Your task to perform on an android device: Go to network settings Image 0: 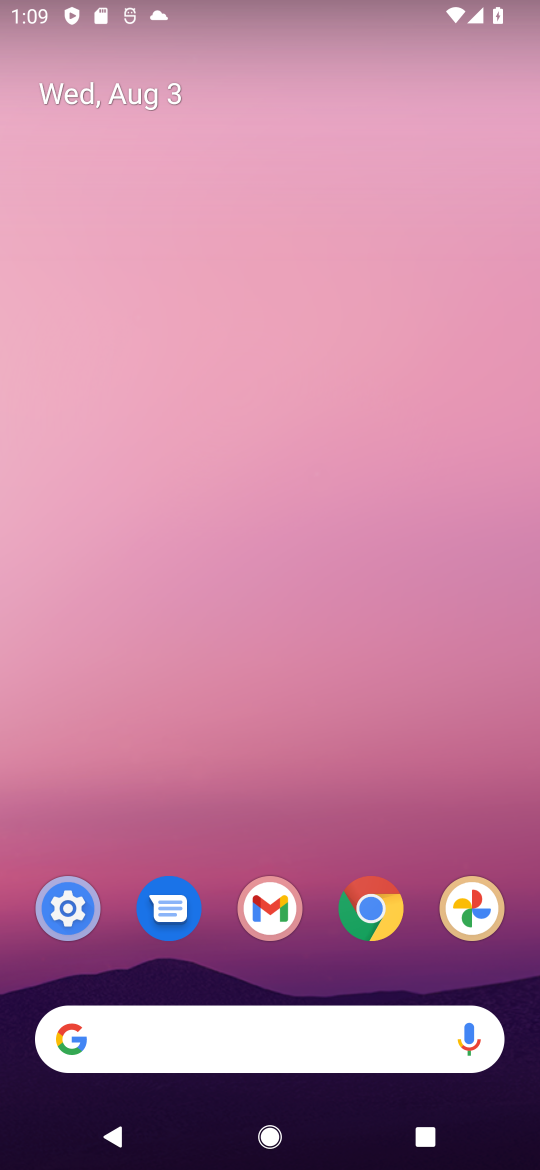
Step 0: click (66, 923)
Your task to perform on an android device: Go to network settings Image 1: 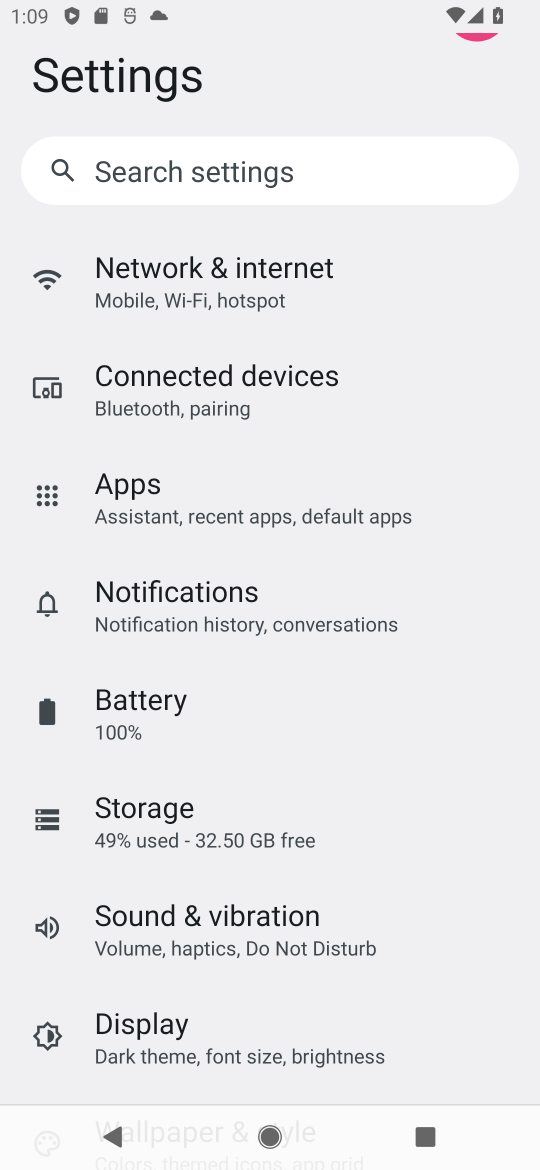
Step 1: click (177, 302)
Your task to perform on an android device: Go to network settings Image 2: 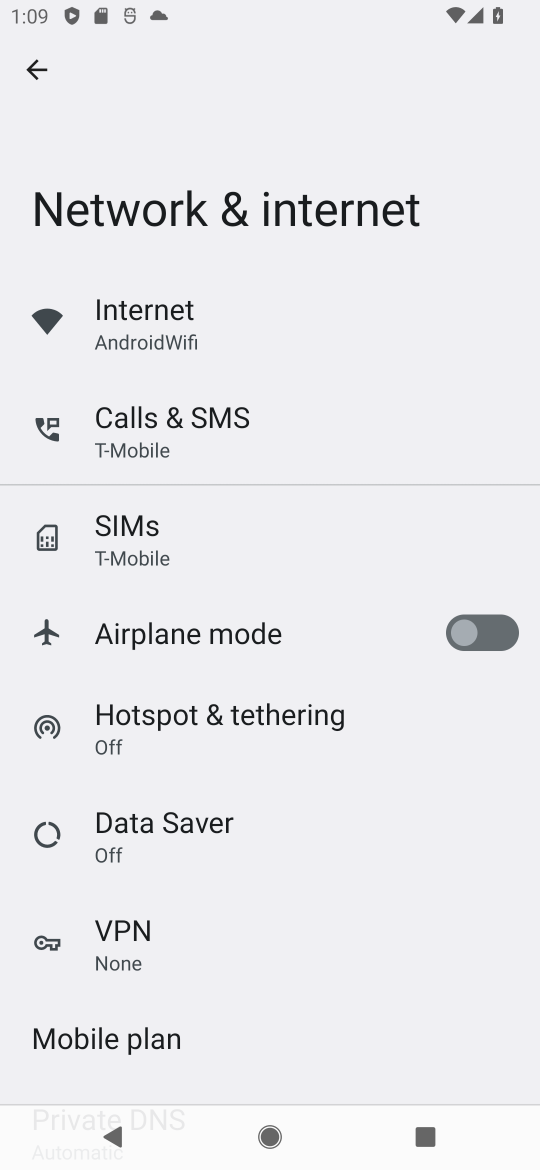
Step 2: task complete